Your task to perform on an android device: Is it going to rain today? Image 0: 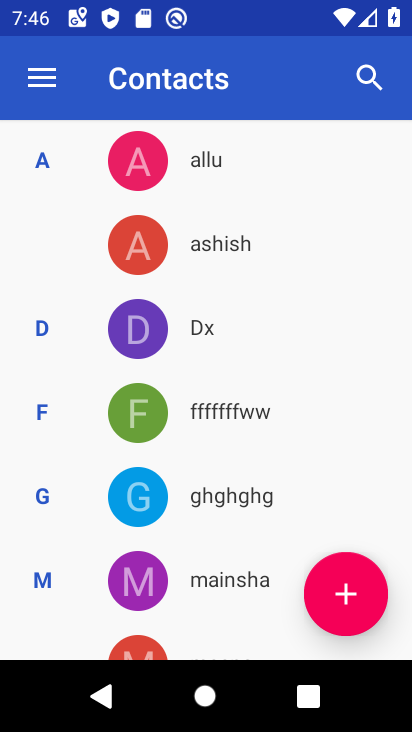
Step 0: press back button
Your task to perform on an android device: Is it going to rain today? Image 1: 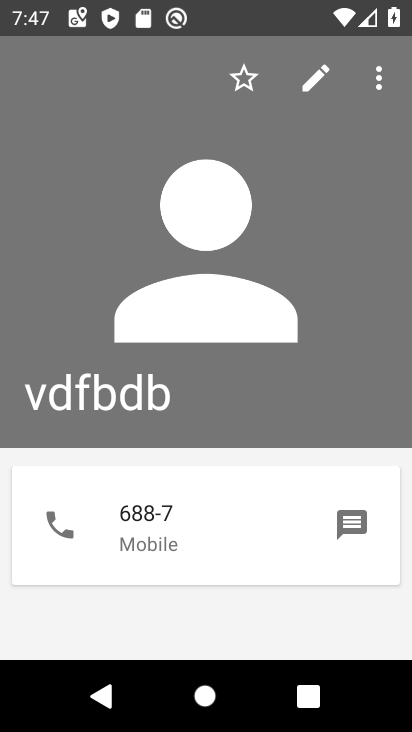
Step 1: press back button
Your task to perform on an android device: Is it going to rain today? Image 2: 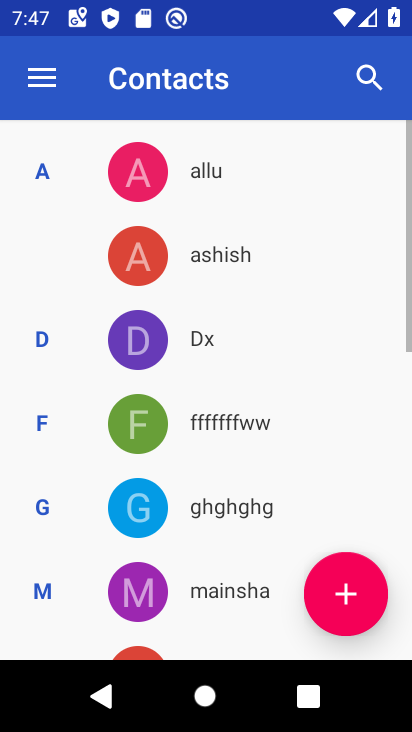
Step 2: press back button
Your task to perform on an android device: Is it going to rain today? Image 3: 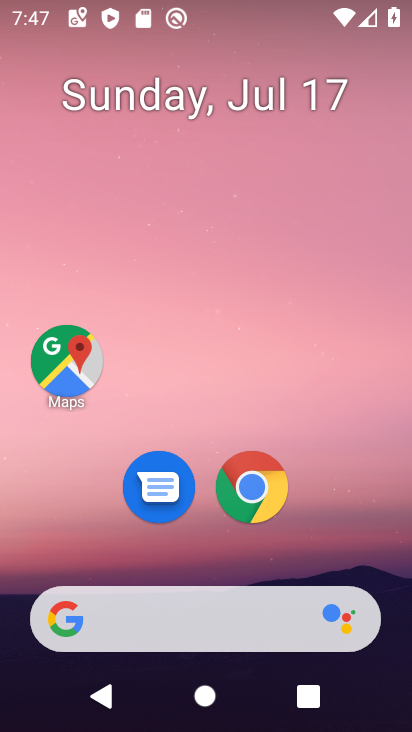
Step 3: click (143, 631)
Your task to perform on an android device: Is it going to rain today? Image 4: 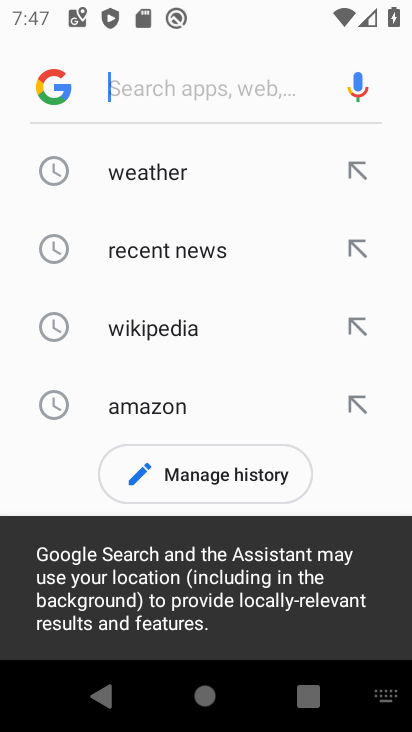
Step 4: click (148, 168)
Your task to perform on an android device: Is it going to rain today? Image 5: 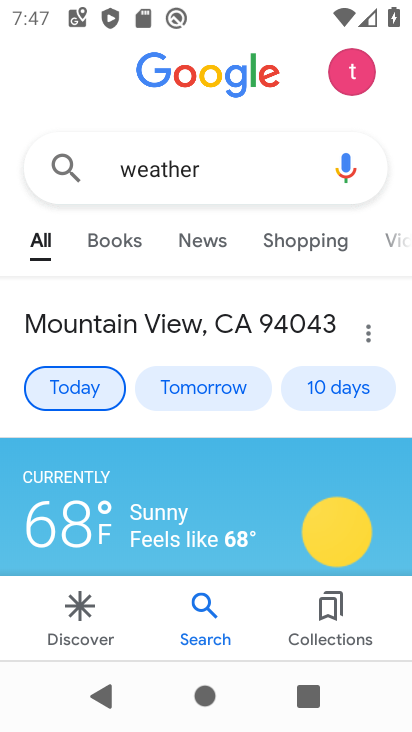
Step 5: task complete